Your task to perform on an android device: toggle improve location accuracy Image 0: 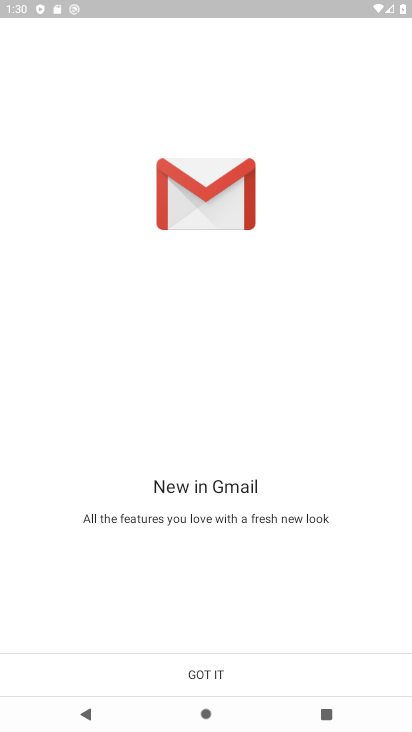
Step 0: press home button
Your task to perform on an android device: toggle improve location accuracy Image 1: 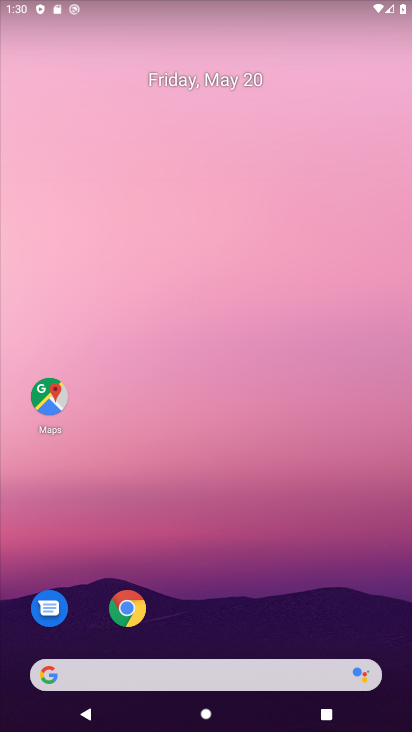
Step 1: drag from (256, 600) to (254, 48)
Your task to perform on an android device: toggle improve location accuracy Image 2: 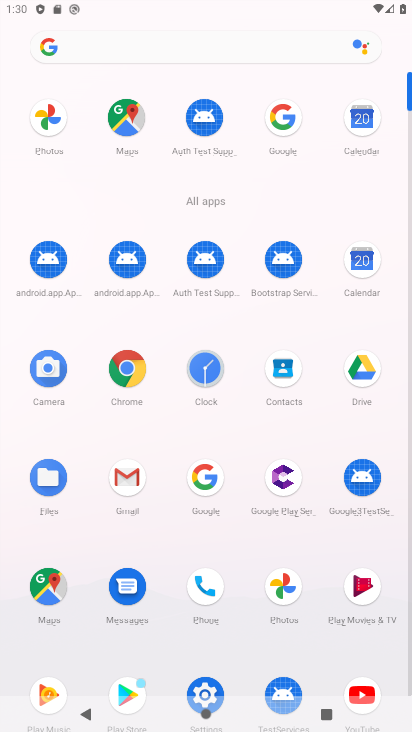
Step 2: click (208, 684)
Your task to perform on an android device: toggle improve location accuracy Image 3: 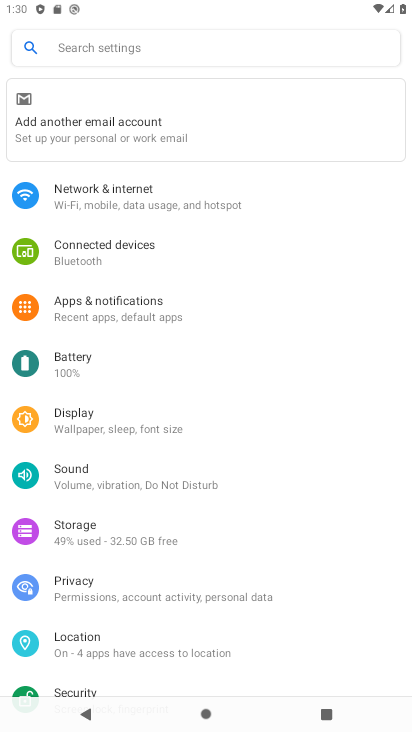
Step 3: click (149, 652)
Your task to perform on an android device: toggle improve location accuracy Image 4: 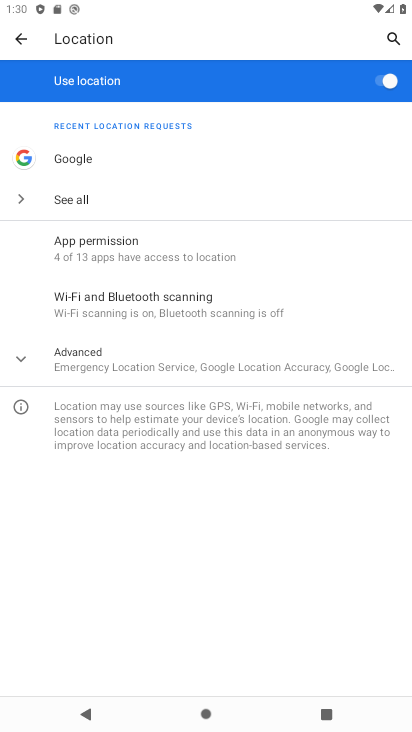
Step 4: click (115, 358)
Your task to perform on an android device: toggle improve location accuracy Image 5: 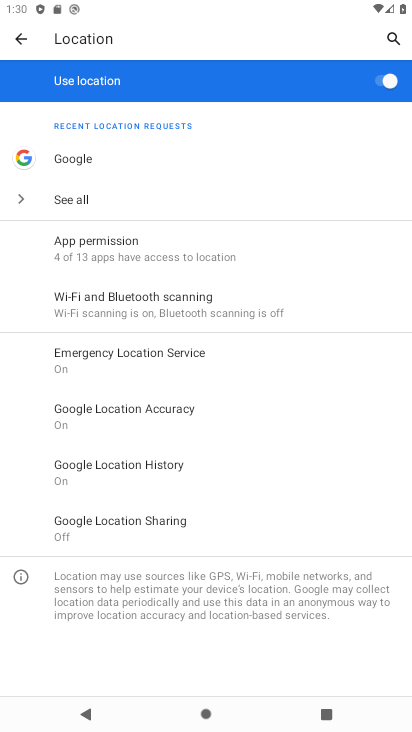
Step 5: click (116, 417)
Your task to perform on an android device: toggle improve location accuracy Image 6: 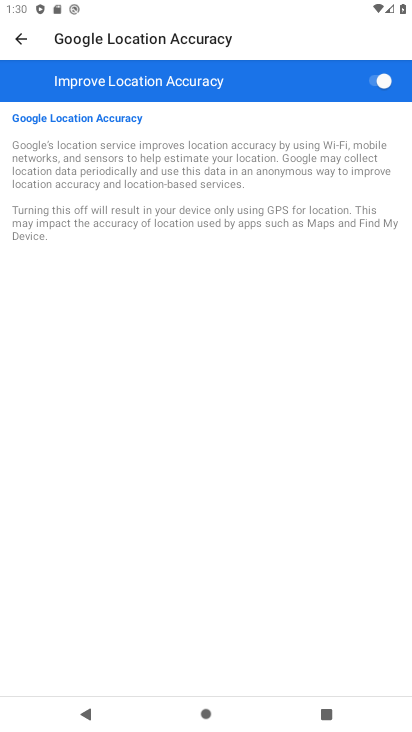
Step 6: click (383, 80)
Your task to perform on an android device: toggle improve location accuracy Image 7: 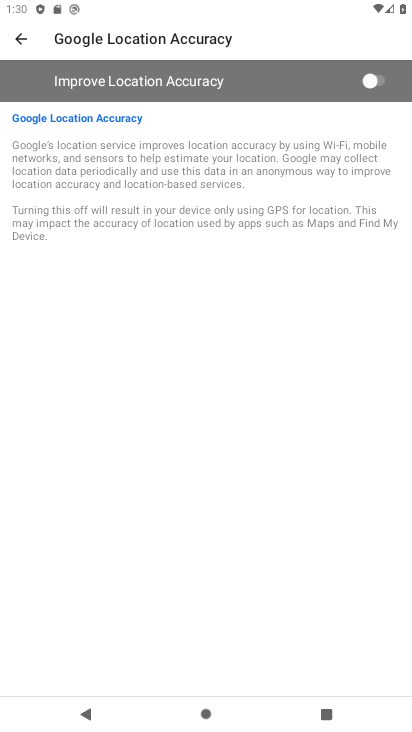
Step 7: task complete